Your task to perform on an android device: Search for sushi restaurants on Maps Image 0: 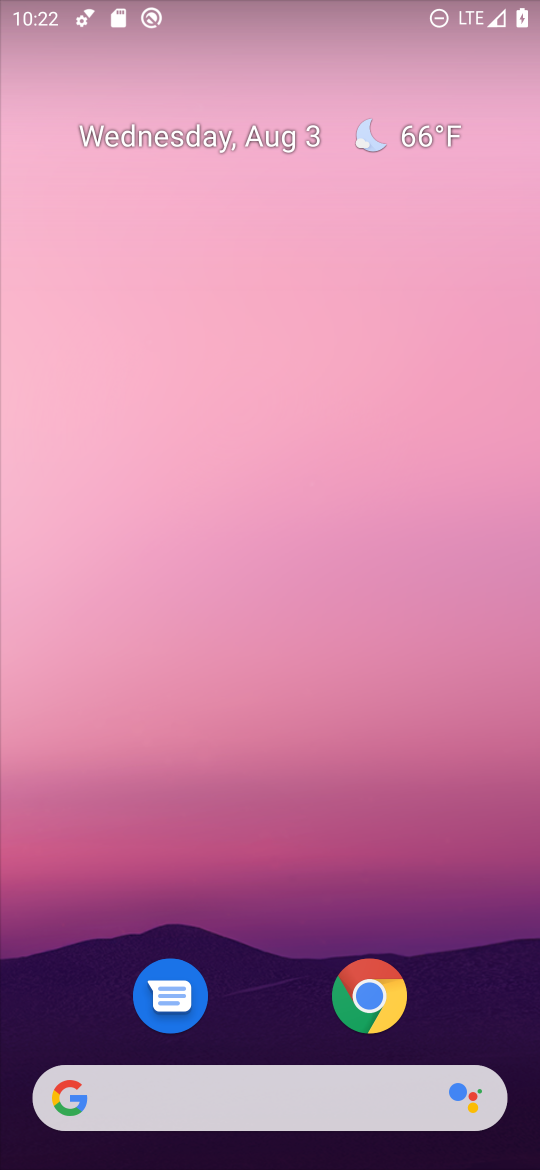
Step 0: drag from (261, 784) to (274, 19)
Your task to perform on an android device: Search for sushi restaurants on Maps Image 1: 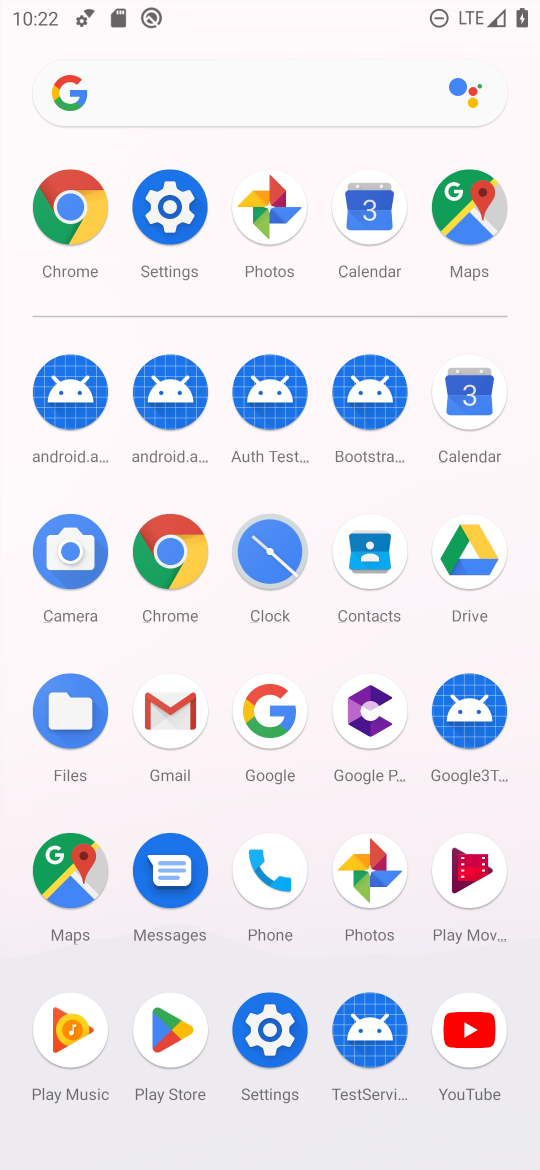
Step 1: click (462, 209)
Your task to perform on an android device: Search for sushi restaurants on Maps Image 2: 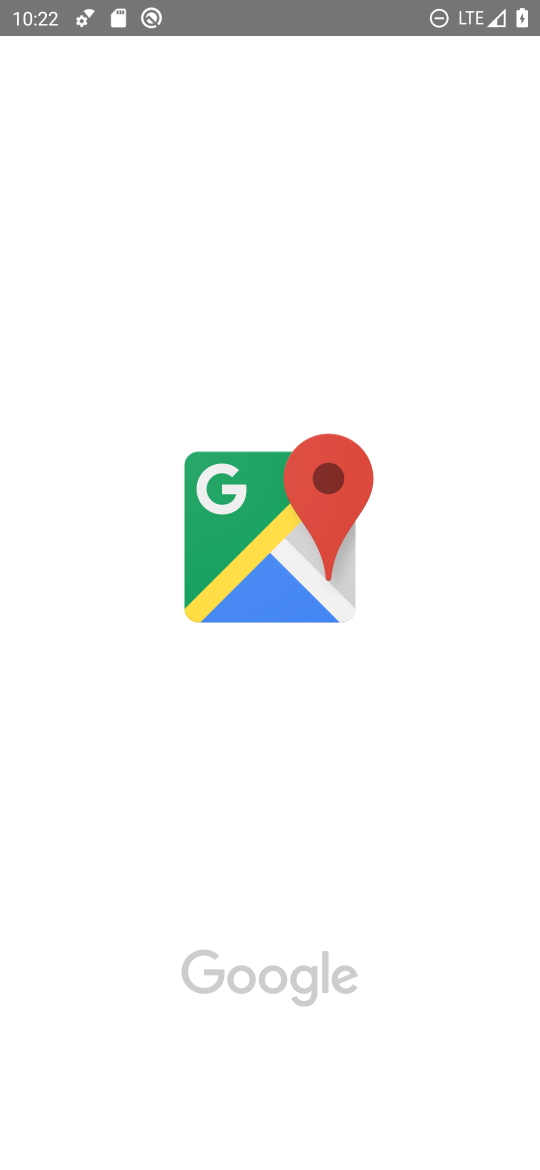
Step 2: click (462, 209)
Your task to perform on an android device: Search for sushi restaurants on Maps Image 3: 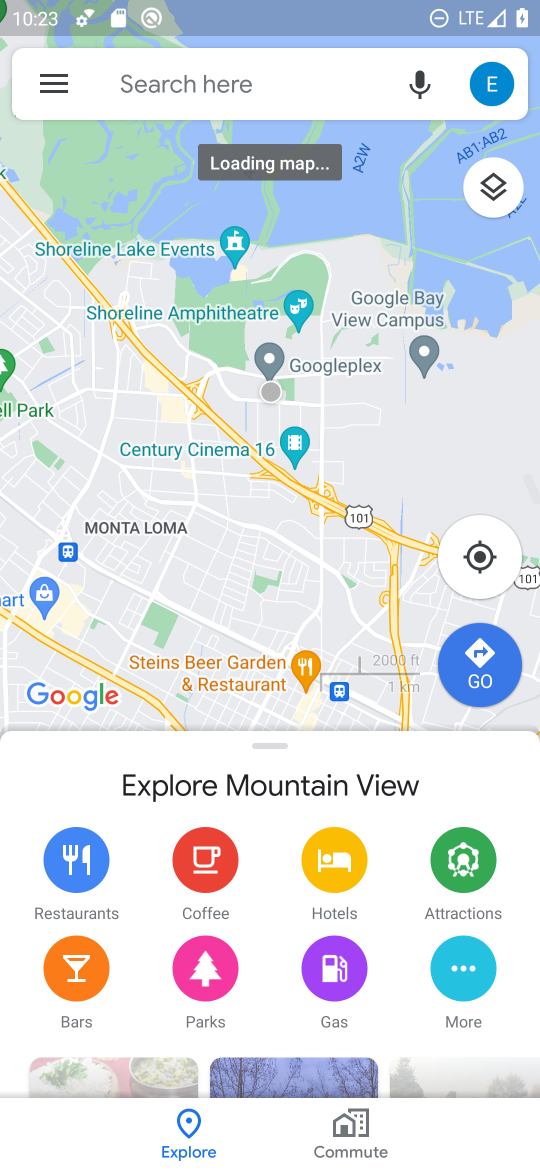
Step 3: click (207, 68)
Your task to perform on an android device: Search for sushi restaurants on Maps Image 4: 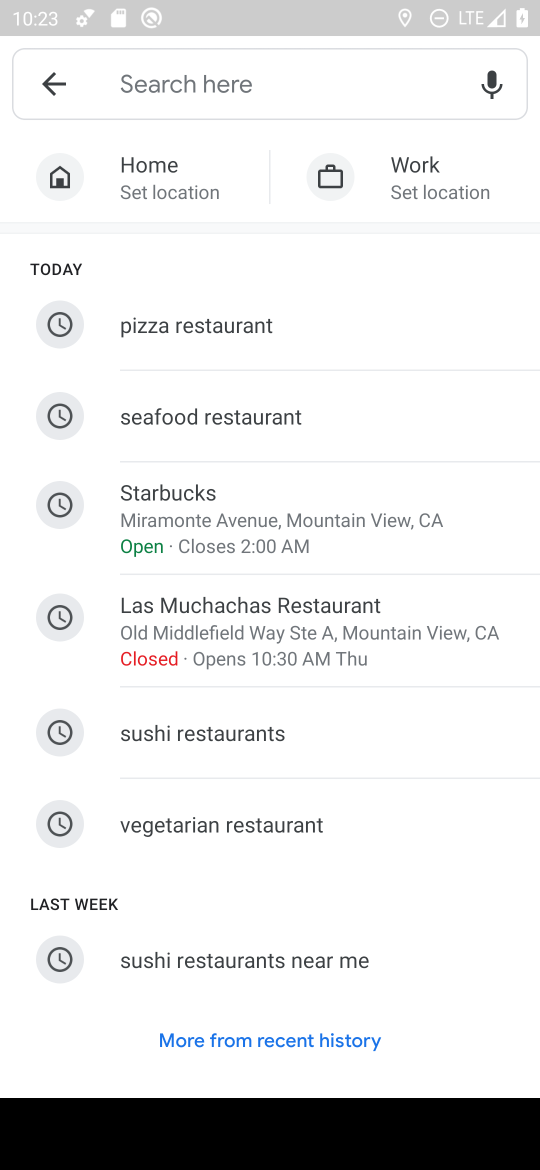
Step 4: click (254, 728)
Your task to perform on an android device: Search for sushi restaurants on Maps Image 5: 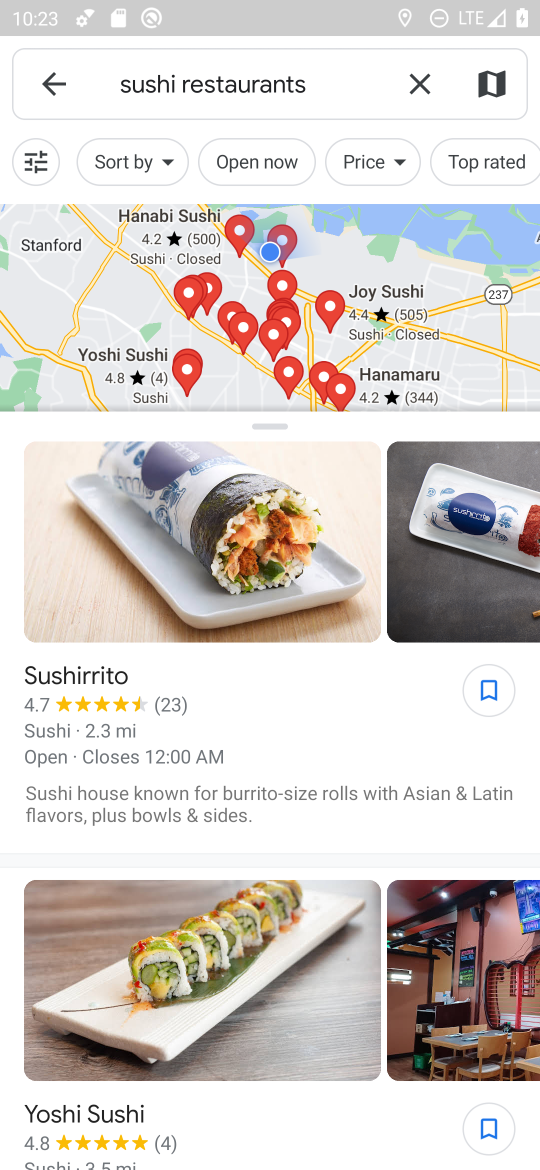
Step 5: task complete